Your task to perform on an android device: remove spam from my inbox in the gmail app Image 0: 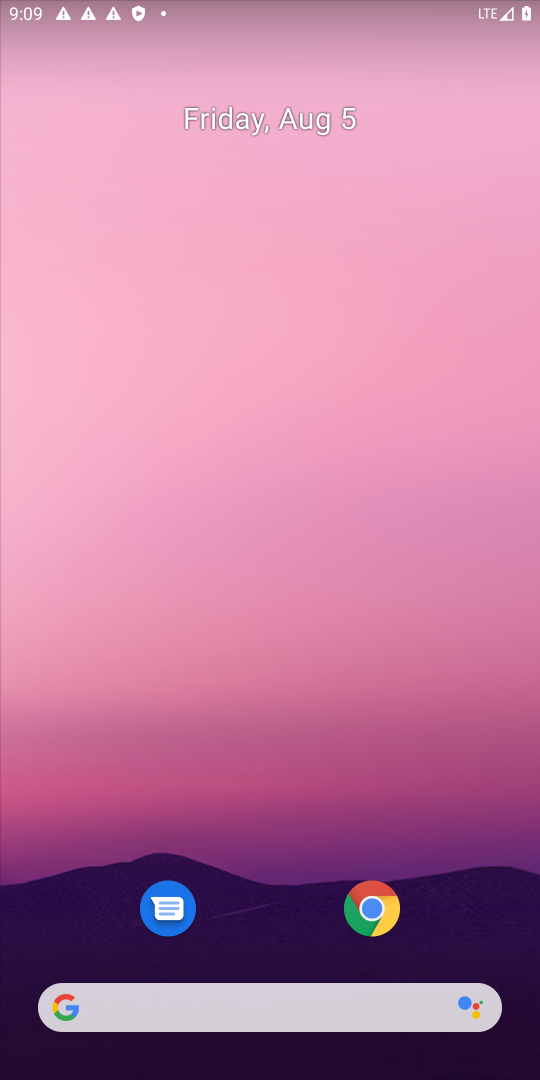
Step 0: drag from (260, 954) to (245, 211)
Your task to perform on an android device: remove spam from my inbox in the gmail app Image 1: 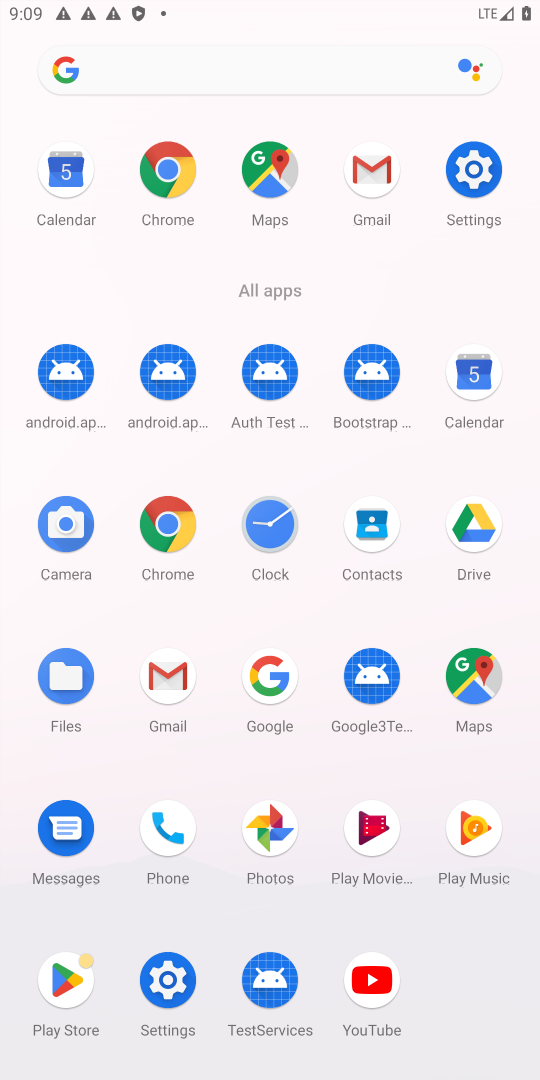
Step 1: click (354, 184)
Your task to perform on an android device: remove spam from my inbox in the gmail app Image 2: 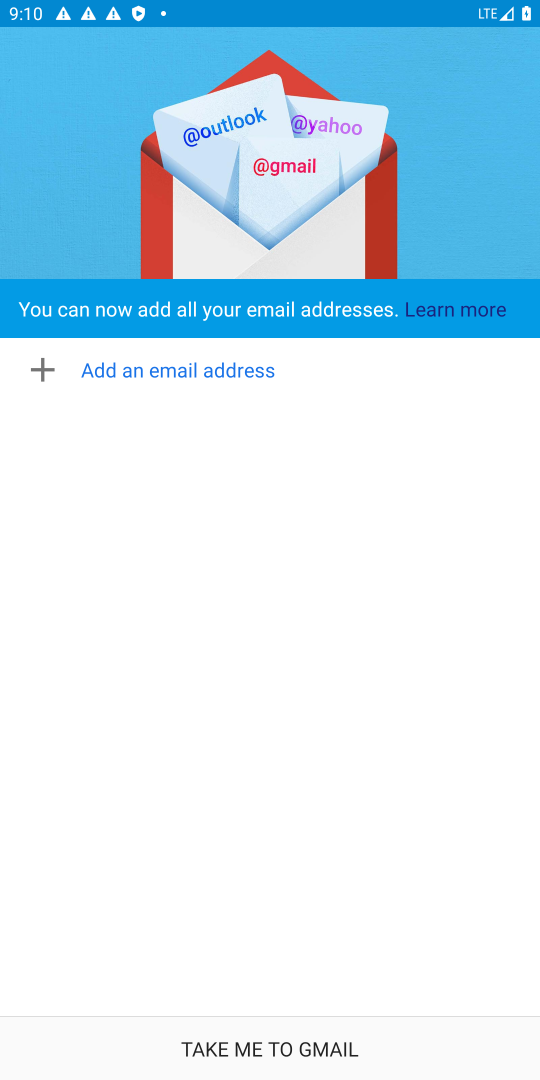
Step 2: click (260, 1030)
Your task to perform on an android device: remove spam from my inbox in the gmail app Image 3: 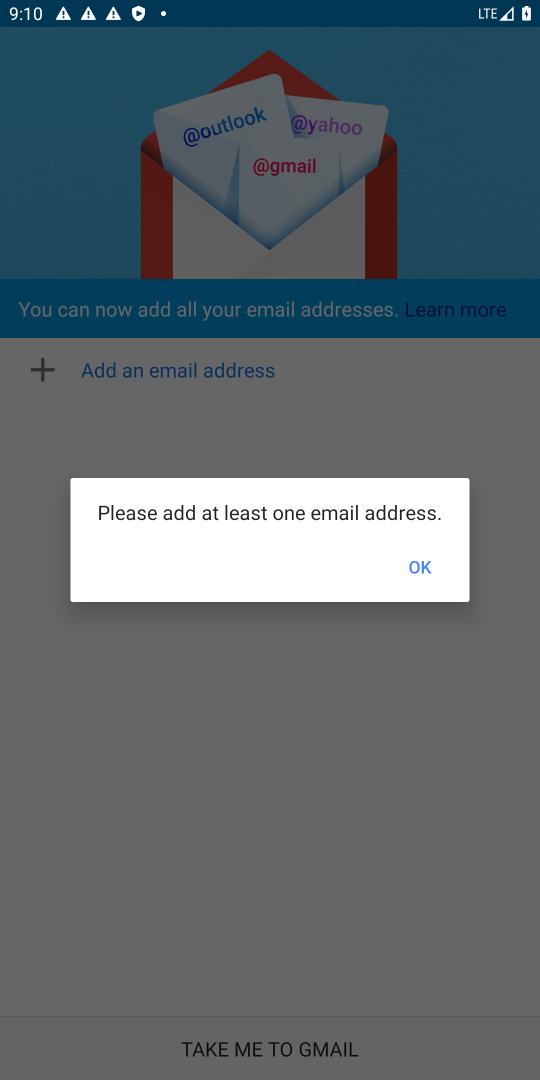
Step 3: task complete